Your task to perform on an android device: open device folders in google photos Image 0: 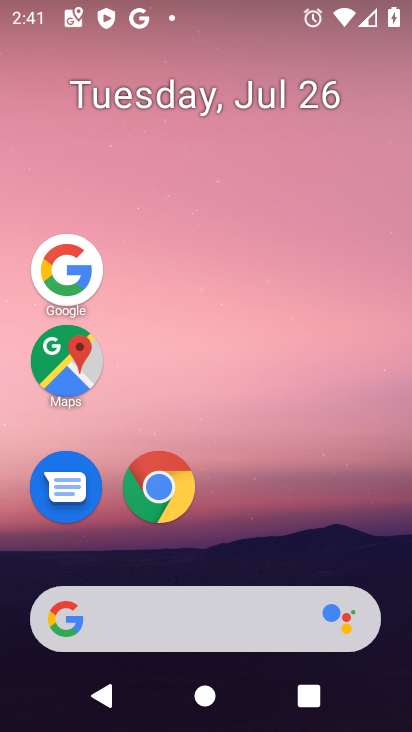
Step 0: drag from (221, 503) to (281, 87)
Your task to perform on an android device: open device folders in google photos Image 1: 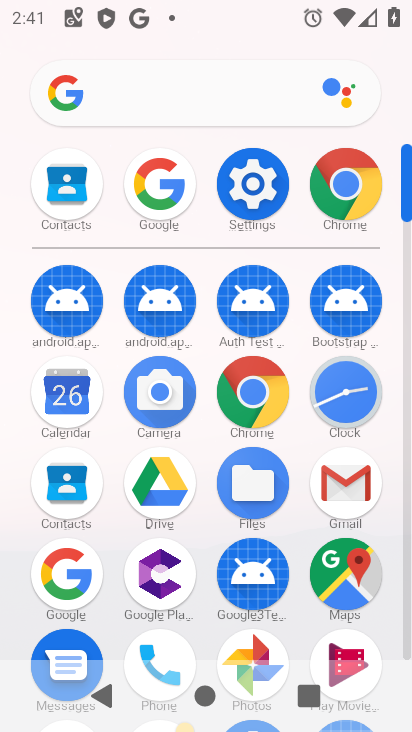
Step 1: drag from (244, 486) to (266, 267)
Your task to perform on an android device: open device folders in google photos Image 2: 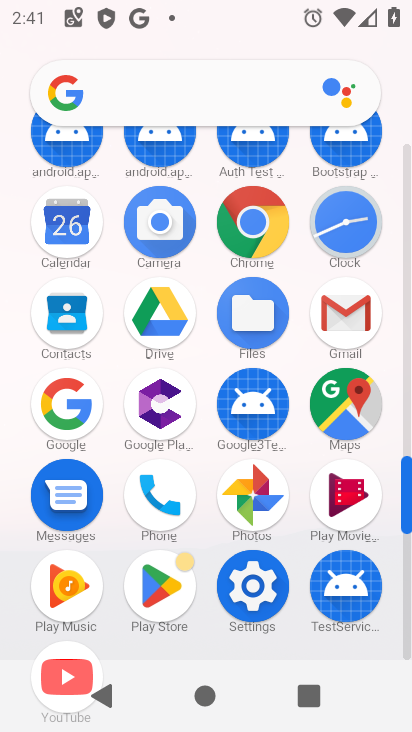
Step 2: click (271, 510)
Your task to perform on an android device: open device folders in google photos Image 3: 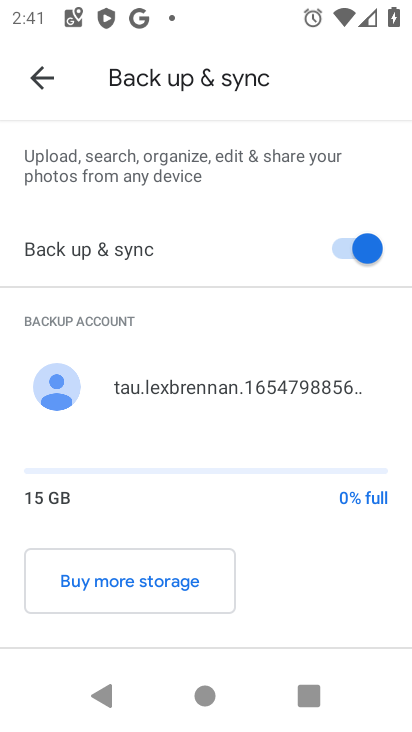
Step 3: click (24, 82)
Your task to perform on an android device: open device folders in google photos Image 4: 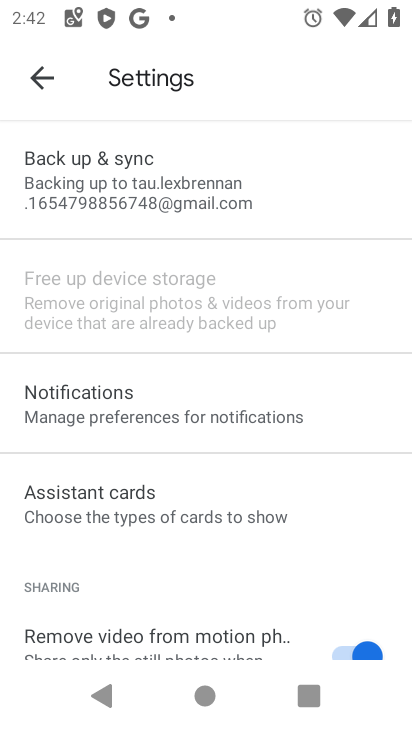
Step 4: click (51, 77)
Your task to perform on an android device: open device folders in google photos Image 5: 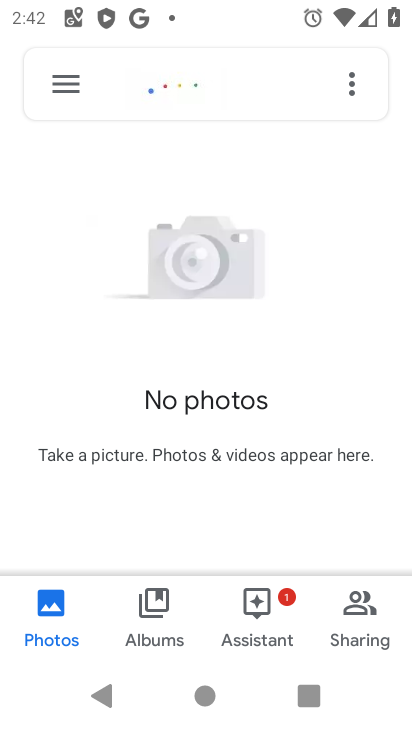
Step 5: click (63, 79)
Your task to perform on an android device: open device folders in google photos Image 6: 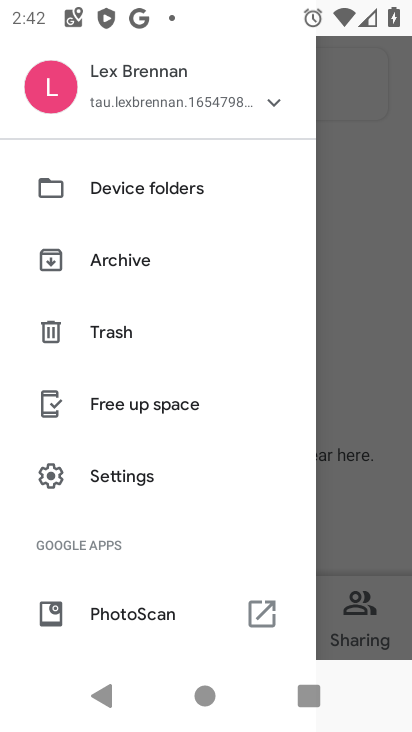
Step 6: click (143, 195)
Your task to perform on an android device: open device folders in google photos Image 7: 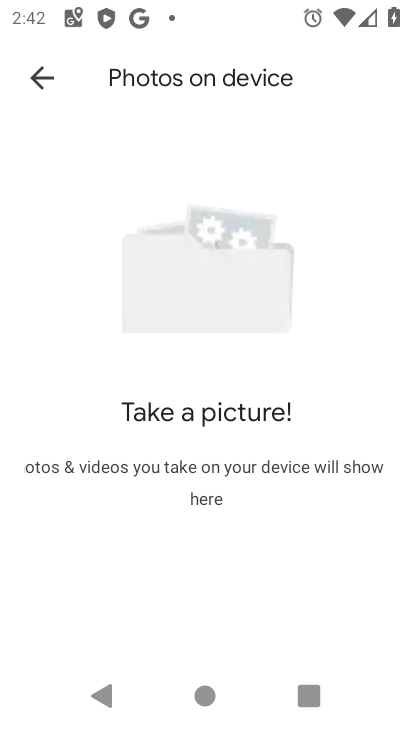
Step 7: click (32, 82)
Your task to perform on an android device: open device folders in google photos Image 8: 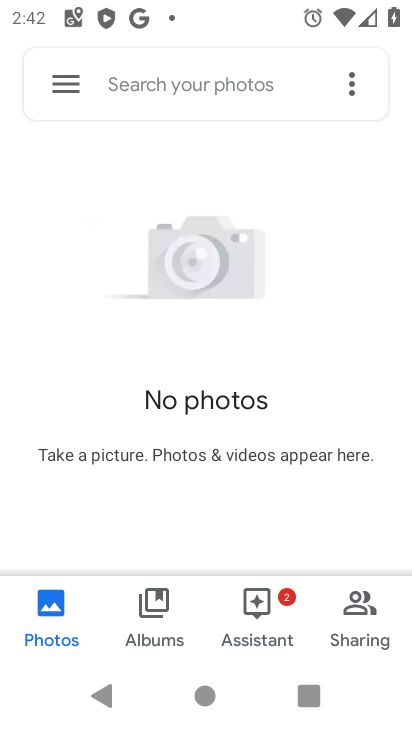
Step 8: task complete